Your task to perform on an android device: check data usage Image 0: 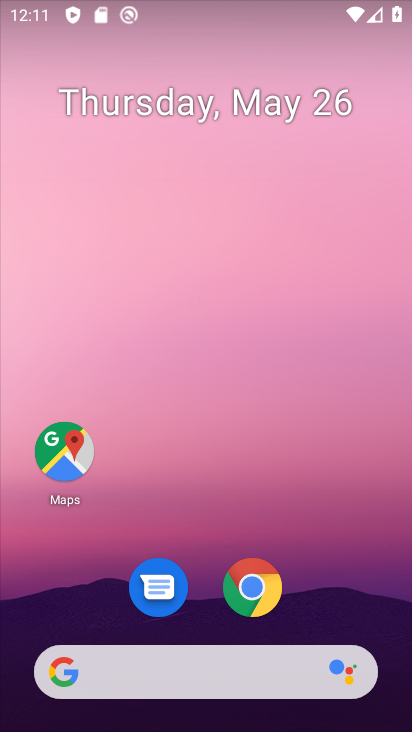
Step 0: drag from (361, 616) to (385, 224)
Your task to perform on an android device: check data usage Image 1: 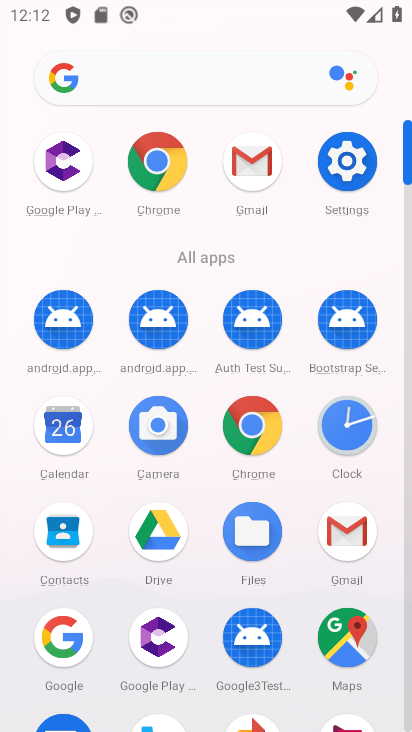
Step 1: click (351, 181)
Your task to perform on an android device: check data usage Image 2: 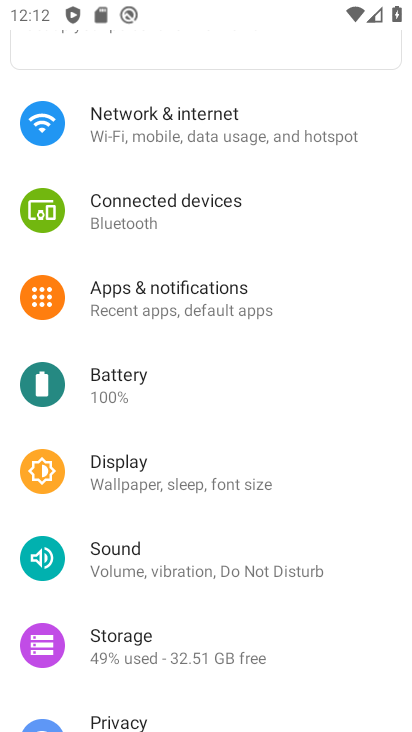
Step 2: drag from (360, 497) to (355, 414)
Your task to perform on an android device: check data usage Image 3: 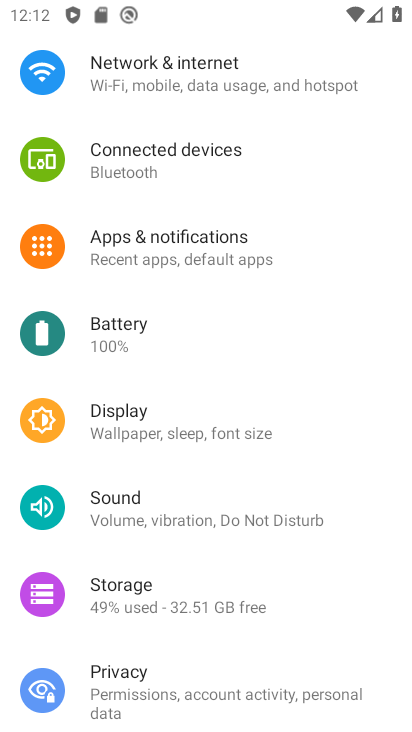
Step 3: drag from (347, 528) to (364, 437)
Your task to perform on an android device: check data usage Image 4: 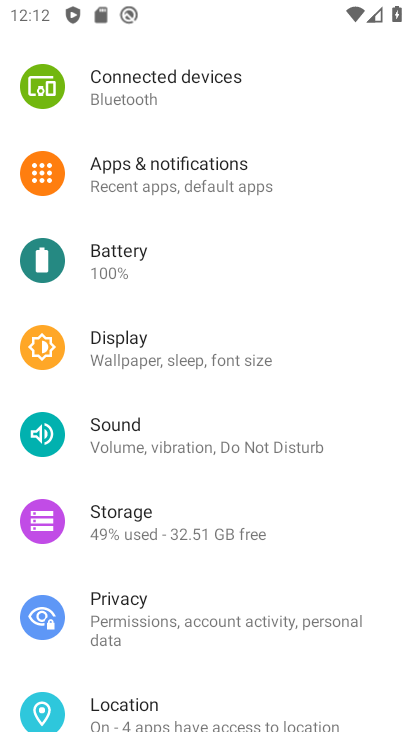
Step 4: drag from (367, 517) to (378, 434)
Your task to perform on an android device: check data usage Image 5: 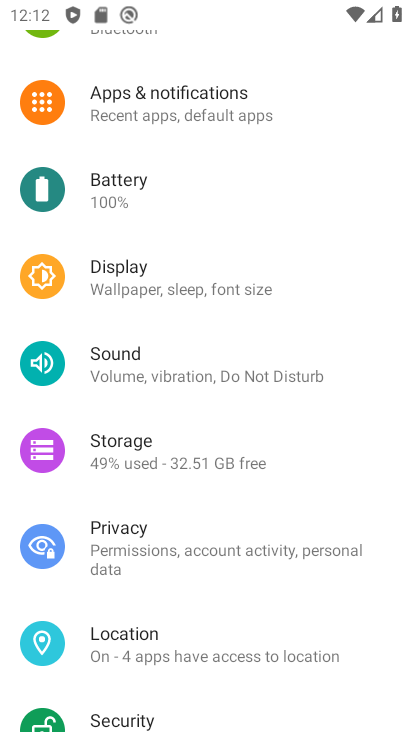
Step 5: drag from (368, 522) to (378, 449)
Your task to perform on an android device: check data usage Image 6: 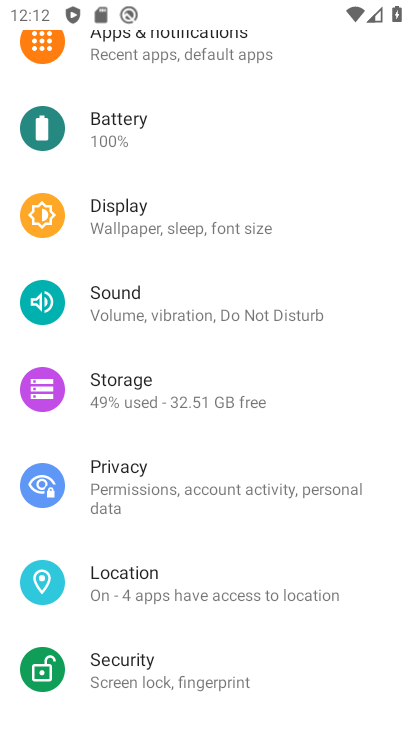
Step 6: drag from (363, 556) to (373, 490)
Your task to perform on an android device: check data usage Image 7: 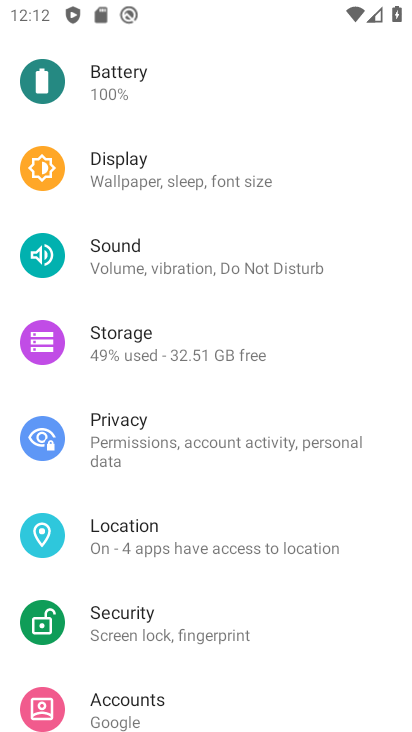
Step 7: drag from (363, 564) to (368, 500)
Your task to perform on an android device: check data usage Image 8: 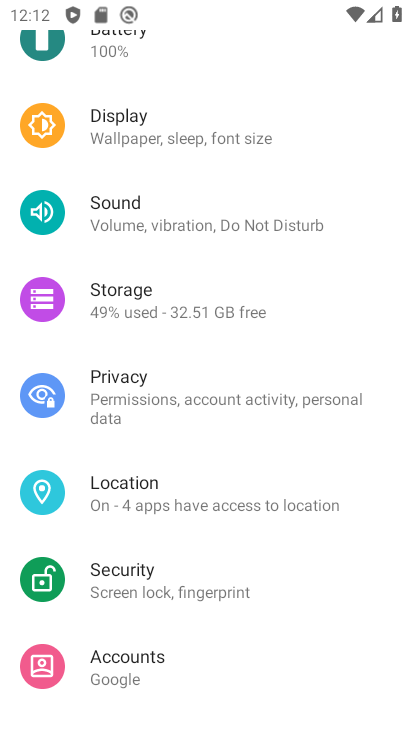
Step 8: drag from (359, 575) to (368, 500)
Your task to perform on an android device: check data usage Image 9: 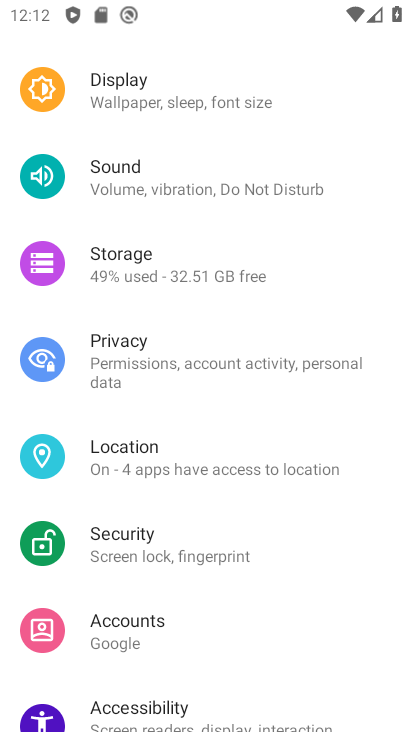
Step 9: drag from (360, 583) to (370, 513)
Your task to perform on an android device: check data usage Image 10: 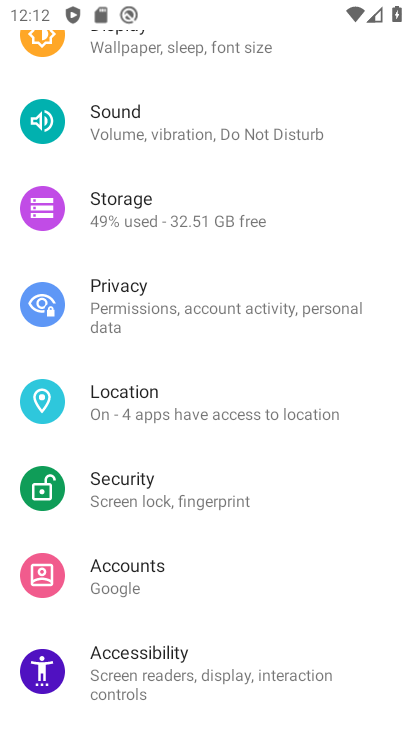
Step 10: drag from (361, 594) to (366, 504)
Your task to perform on an android device: check data usage Image 11: 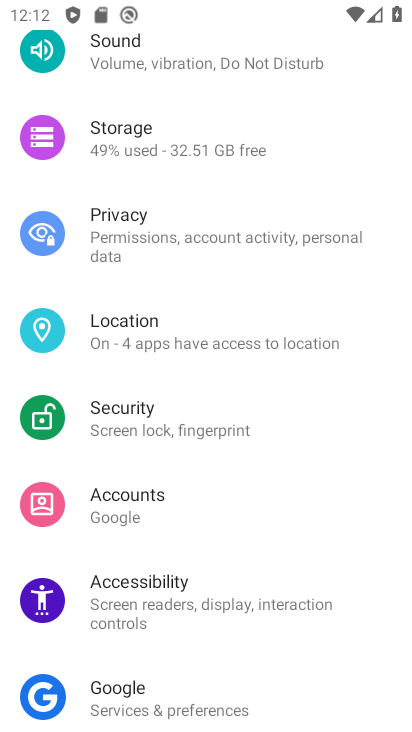
Step 11: drag from (364, 578) to (362, 522)
Your task to perform on an android device: check data usage Image 12: 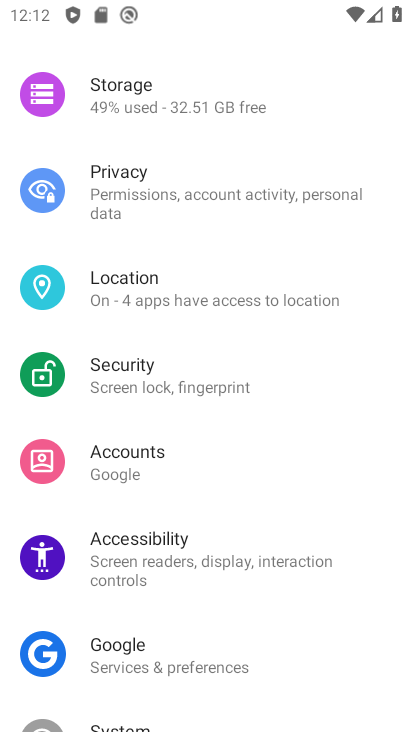
Step 12: drag from (363, 610) to (368, 543)
Your task to perform on an android device: check data usage Image 13: 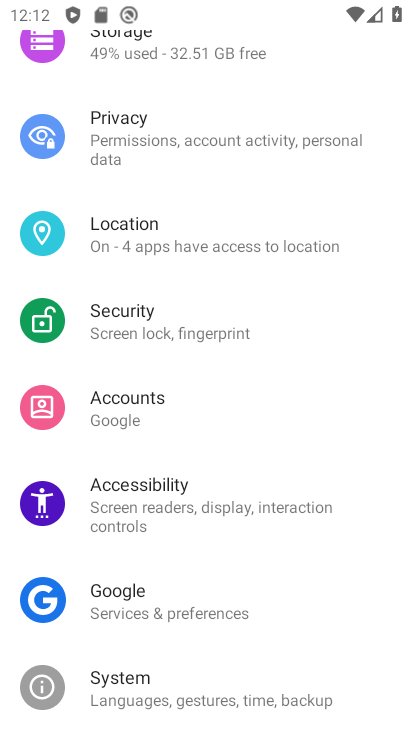
Step 13: drag from (356, 622) to (358, 569)
Your task to perform on an android device: check data usage Image 14: 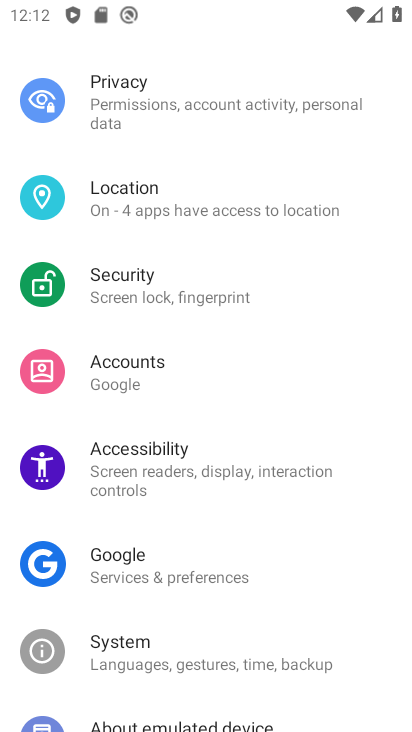
Step 14: drag from (352, 626) to (358, 560)
Your task to perform on an android device: check data usage Image 15: 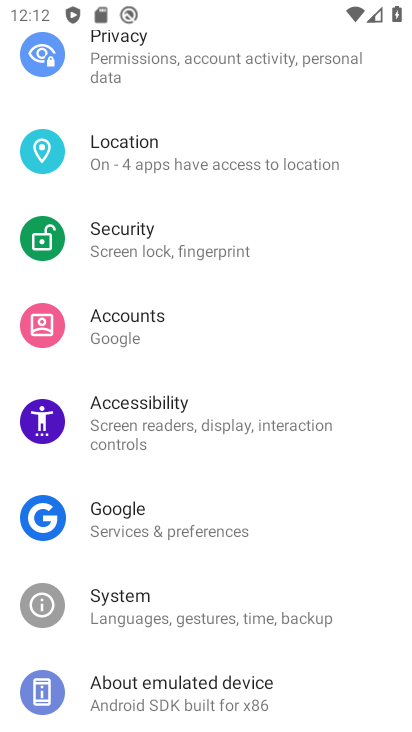
Step 15: drag from (356, 485) to (358, 545)
Your task to perform on an android device: check data usage Image 16: 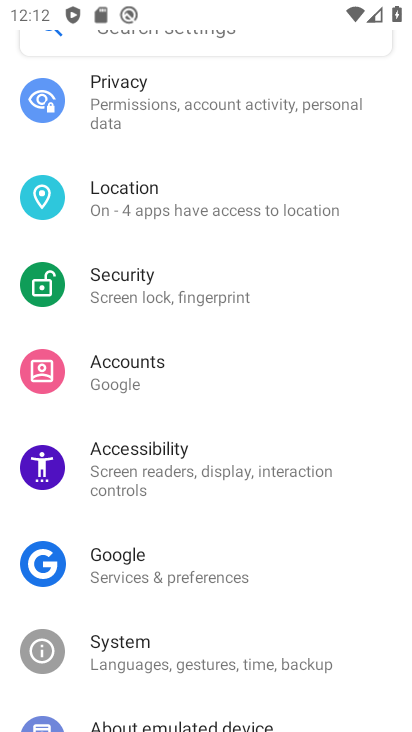
Step 16: drag from (357, 481) to (357, 531)
Your task to perform on an android device: check data usage Image 17: 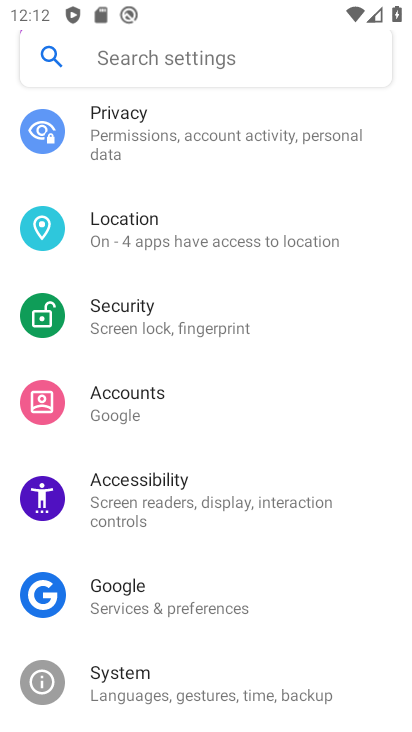
Step 17: drag from (363, 422) to (359, 510)
Your task to perform on an android device: check data usage Image 18: 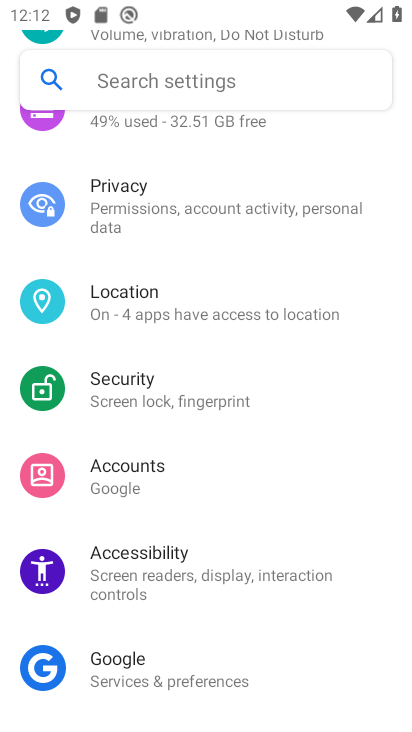
Step 18: drag from (356, 431) to (351, 522)
Your task to perform on an android device: check data usage Image 19: 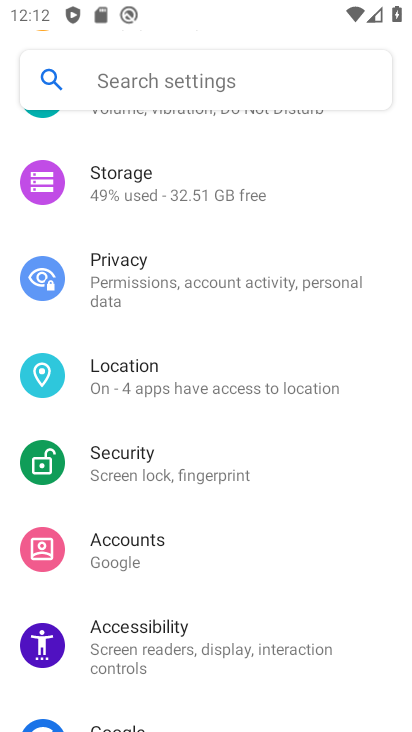
Step 19: drag from (371, 377) to (377, 475)
Your task to perform on an android device: check data usage Image 20: 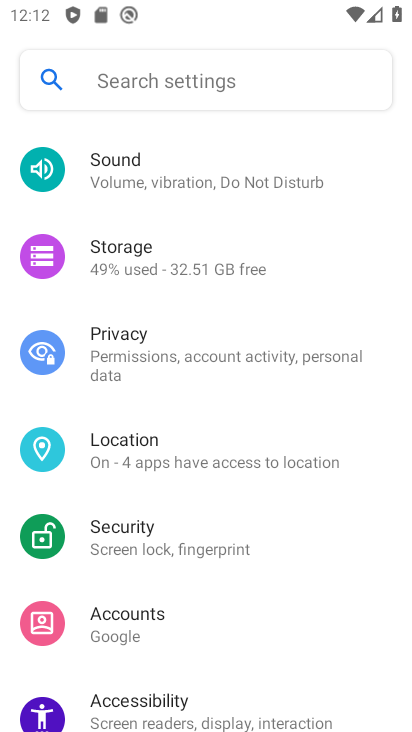
Step 20: drag from (372, 297) to (365, 429)
Your task to perform on an android device: check data usage Image 21: 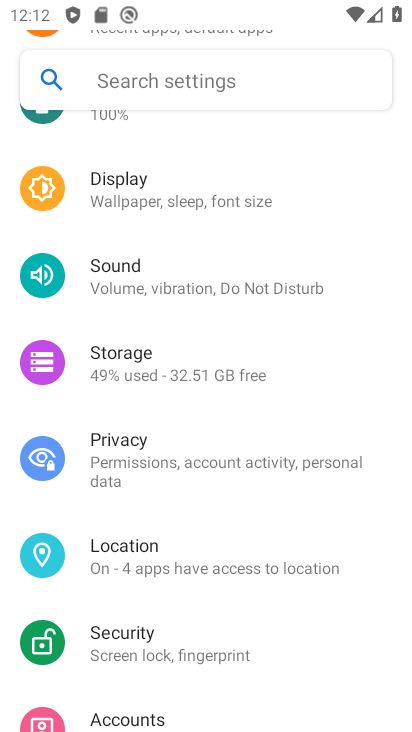
Step 21: drag from (355, 294) to (352, 404)
Your task to perform on an android device: check data usage Image 22: 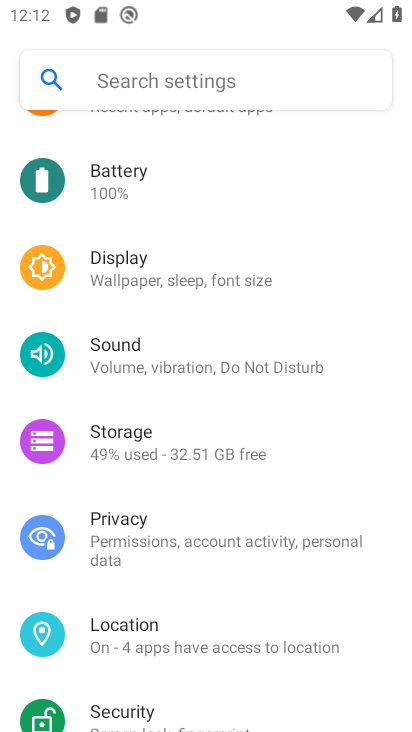
Step 22: drag from (366, 282) to (363, 385)
Your task to perform on an android device: check data usage Image 23: 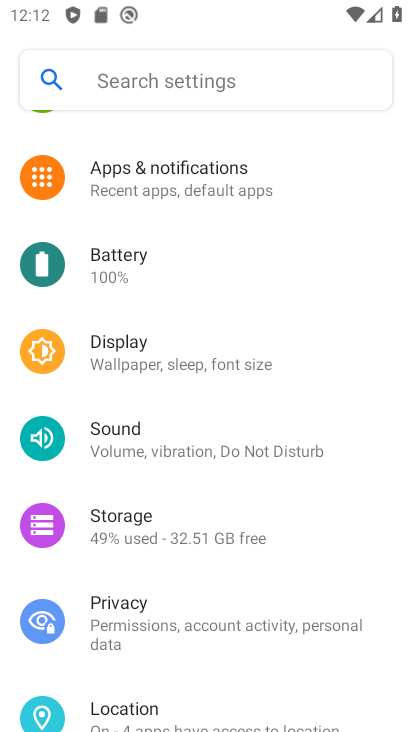
Step 23: drag from (356, 283) to (360, 390)
Your task to perform on an android device: check data usage Image 24: 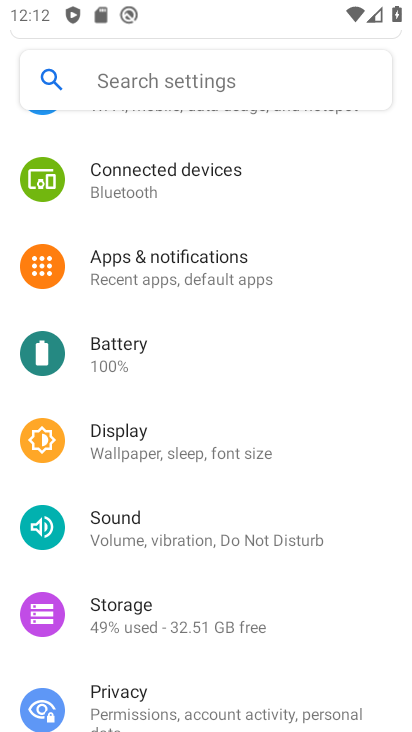
Step 24: drag from (356, 287) to (354, 385)
Your task to perform on an android device: check data usage Image 25: 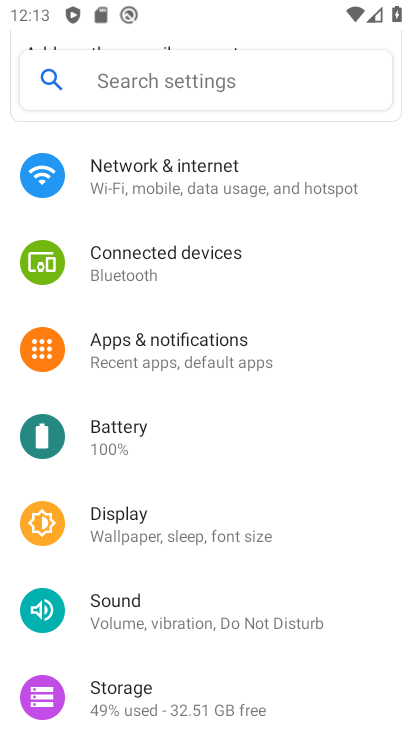
Step 25: drag from (341, 289) to (344, 383)
Your task to perform on an android device: check data usage Image 26: 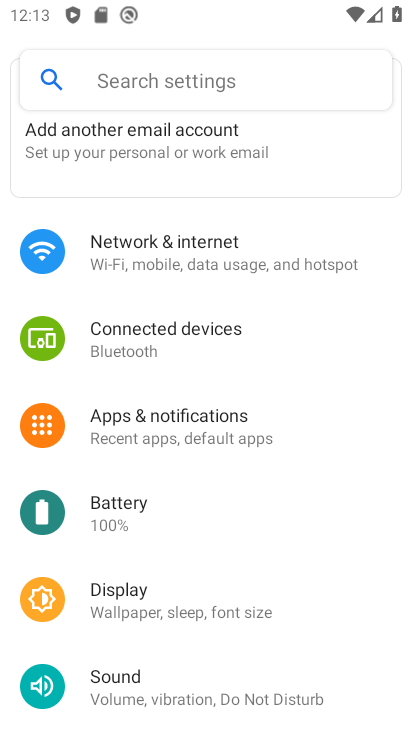
Step 26: click (317, 256)
Your task to perform on an android device: check data usage Image 27: 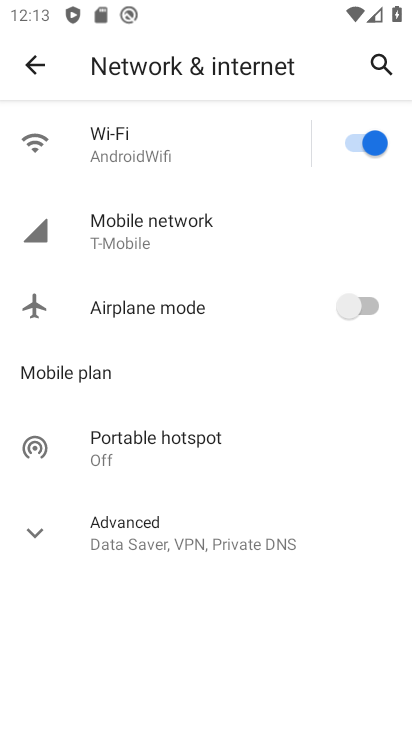
Step 27: click (199, 255)
Your task to perform on an android device: check data usage Image 28: 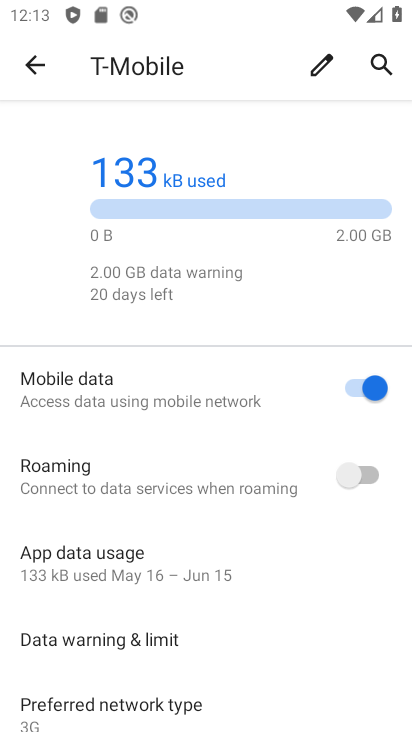
Step 28: drag from (242, 445) to (248, 300)
Your task to perform on an android device: check data usage Image 29: 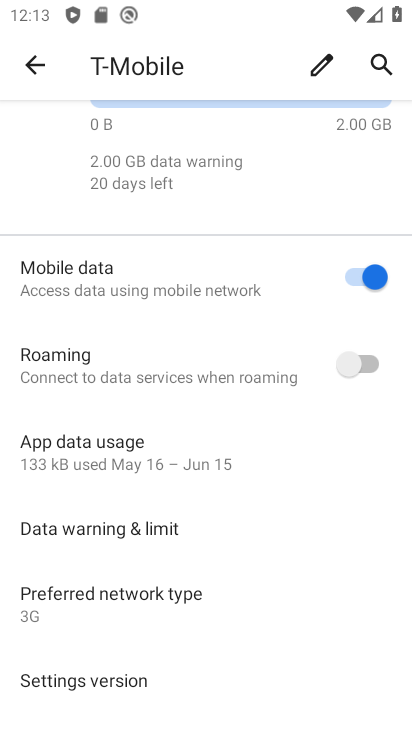
Step 29: click (150, 452)
Your task to perform on an android device: check data usage Image 30: 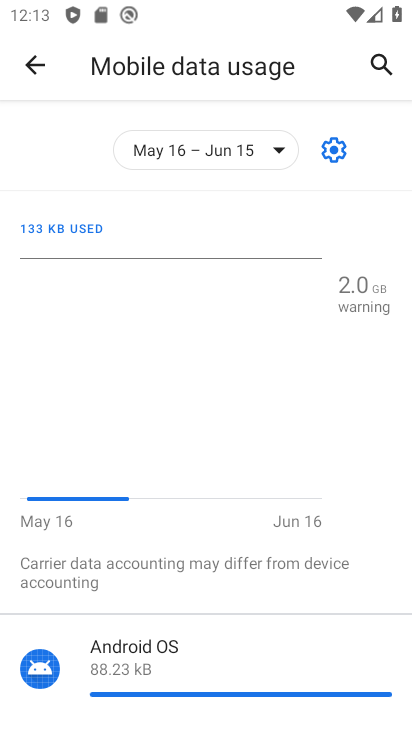
Step 30: task complete